Your task to perform on an android device: change alarm snooze length Image 0: 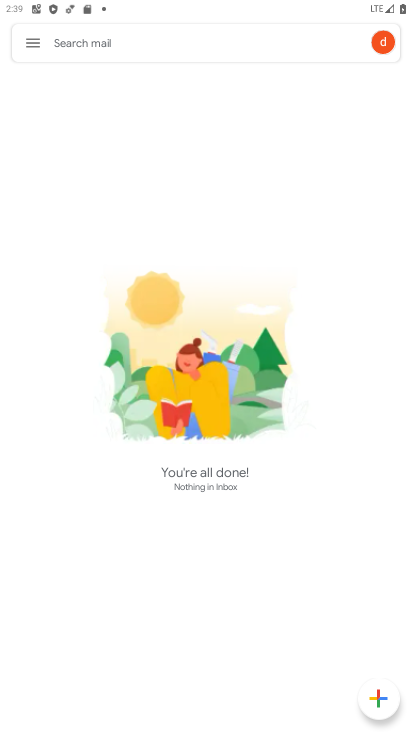
Step 0: press home button
Your task to perform on an android device: change alarm snooze length Image 1: 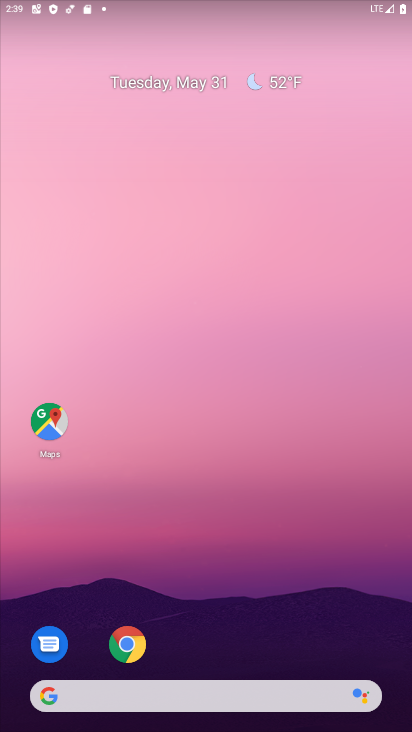
Step 1: drag from (153, 726) to (125, 128)
Your task to perform on an android device: change alarm snooze length Image 2: 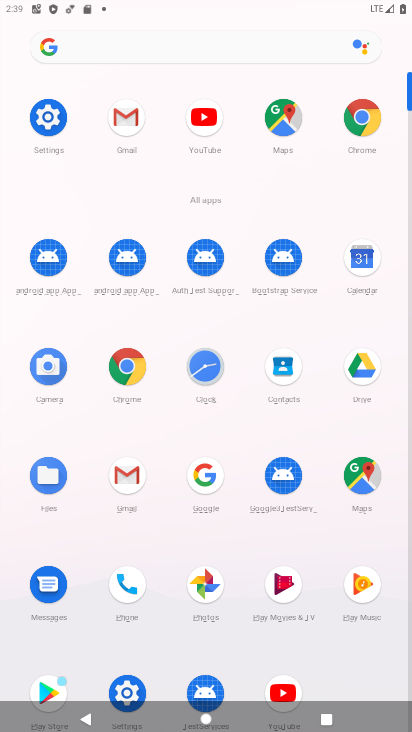
Step 2: click (206, 375)
Your task to perform on an android device: change alarm snooze length Image 3: 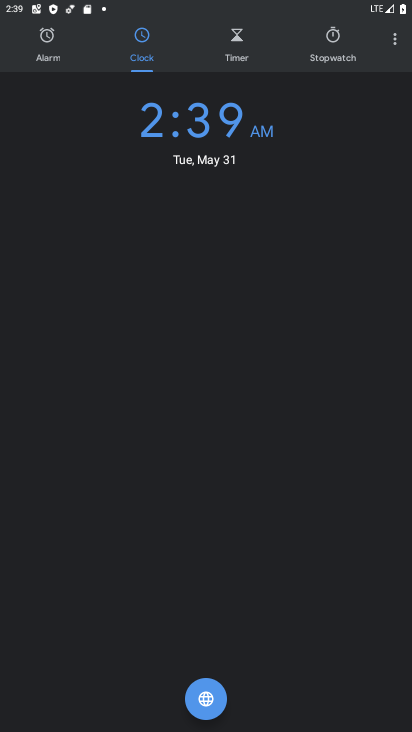
Step 3: click (395, 47)
Your task to perform on an android device: change alarm snooze length Image 4: 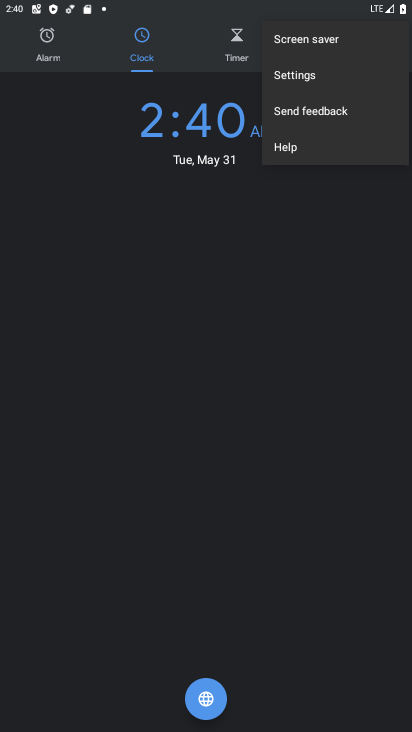
Step 4: click (296, 76)
Your task to perform on an android device: change alarm snooze length Image 5: 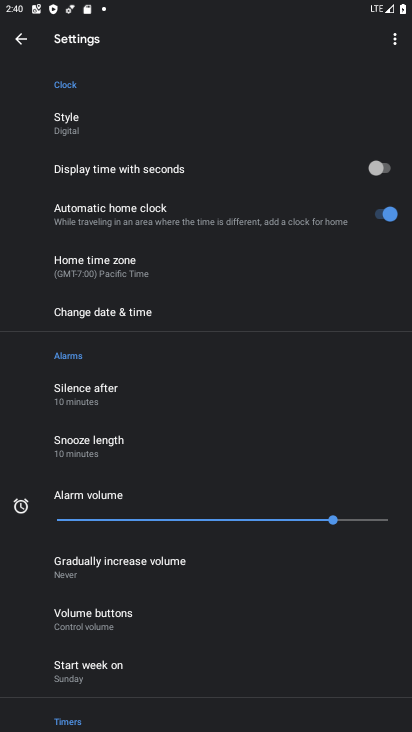
Step 5: click (79, 447)
Your task to perform on an android device: change alarm snooze length Image 6: 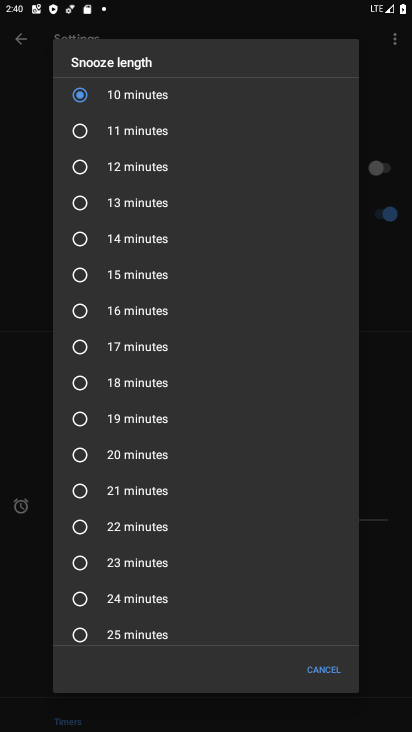
Step 6: click (128, 168)
Your task to perform on an android device: change alarm snooze length Image 7: 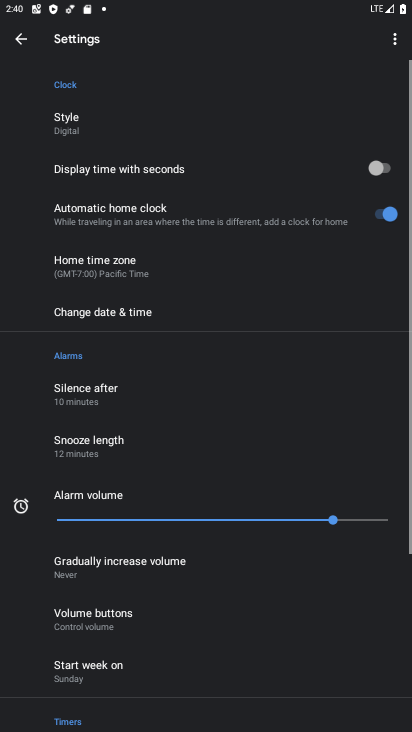
Step 7: task complete